Your task to perform on an android device: Show the shopping cart on newegg. Add "lenovo thinkpad" to the cart on newegg Image 0: 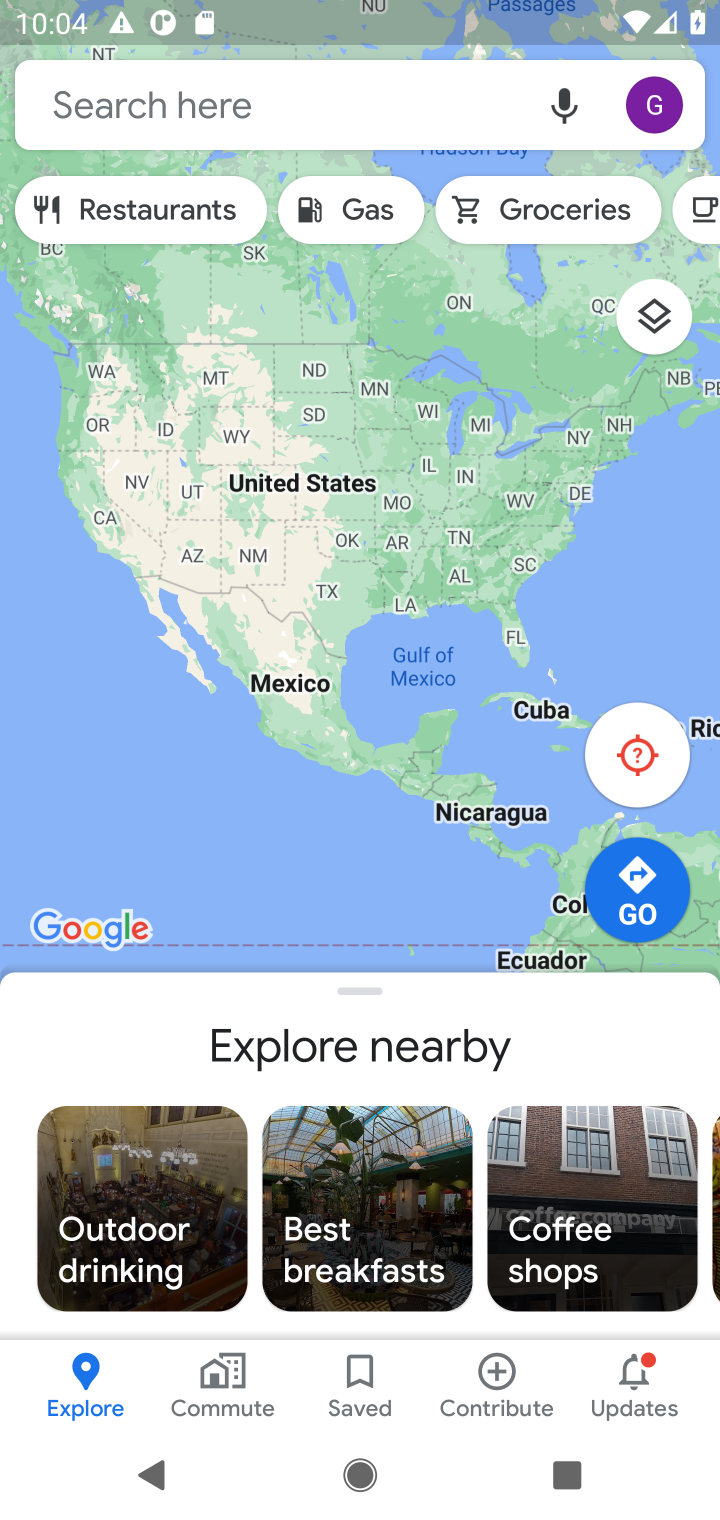
Step 0: press home button
Your task to perform on an android device: Show the shopping cart on newegg. Add "lenovo thinkpad" to the cart on newegg Image 1: 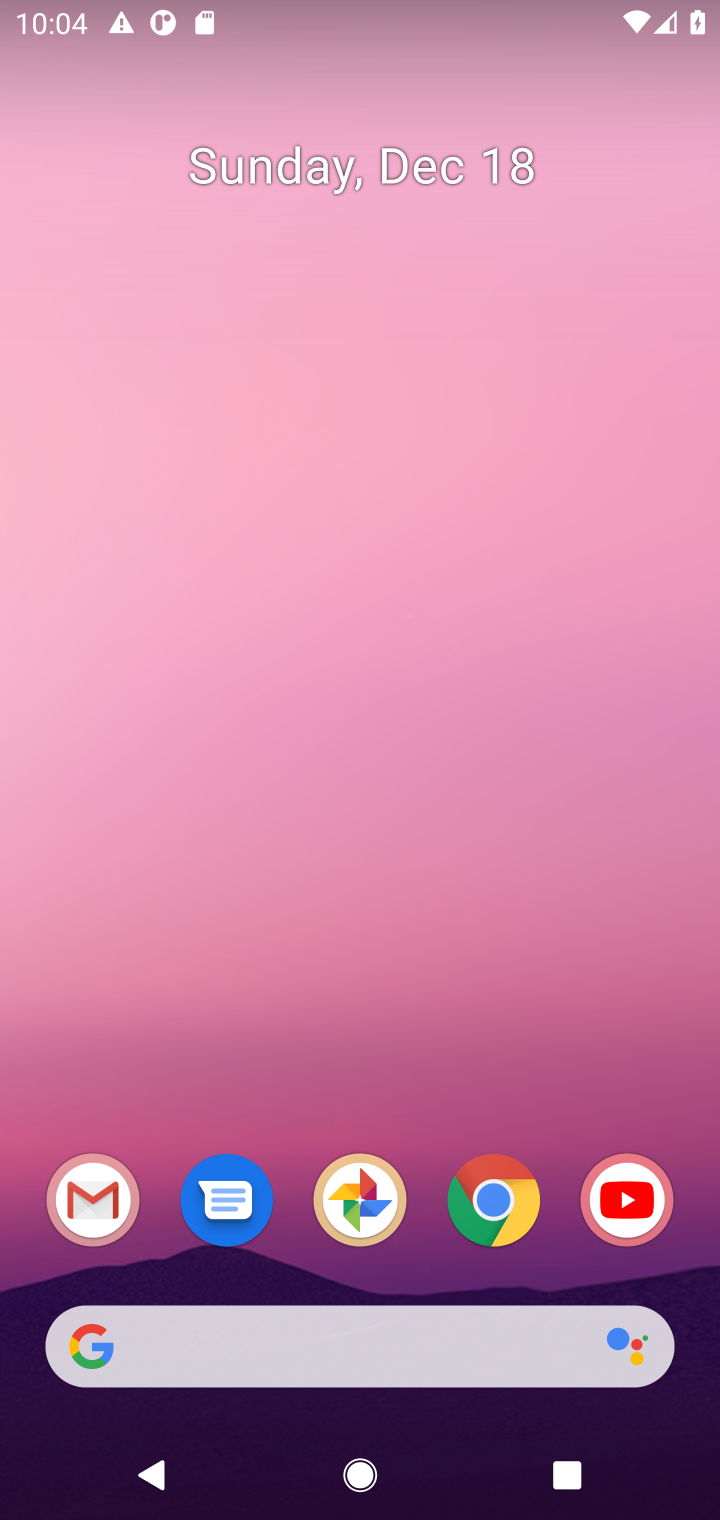
Step 1: click (490, 1204)
Your task to perform on an android device: Show the shopping cart on newegg. Add "lenovo thinkpad" to the cart on newegg Image 2: 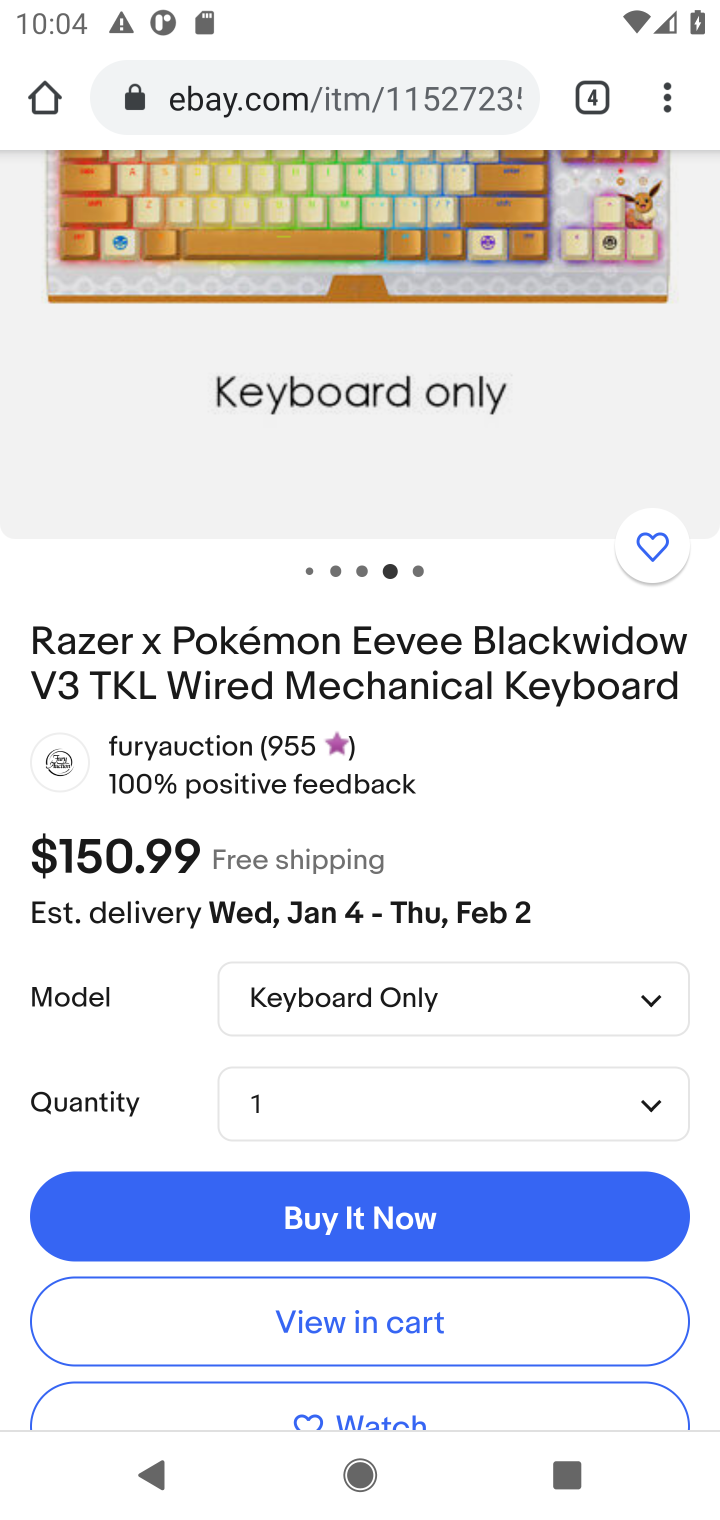
Step 2: click (261, 114)
Your task to perform on an android device: Show the shopping cart on newegg. Add "lenovo thinkpad" to the cart on newegg Image 3: 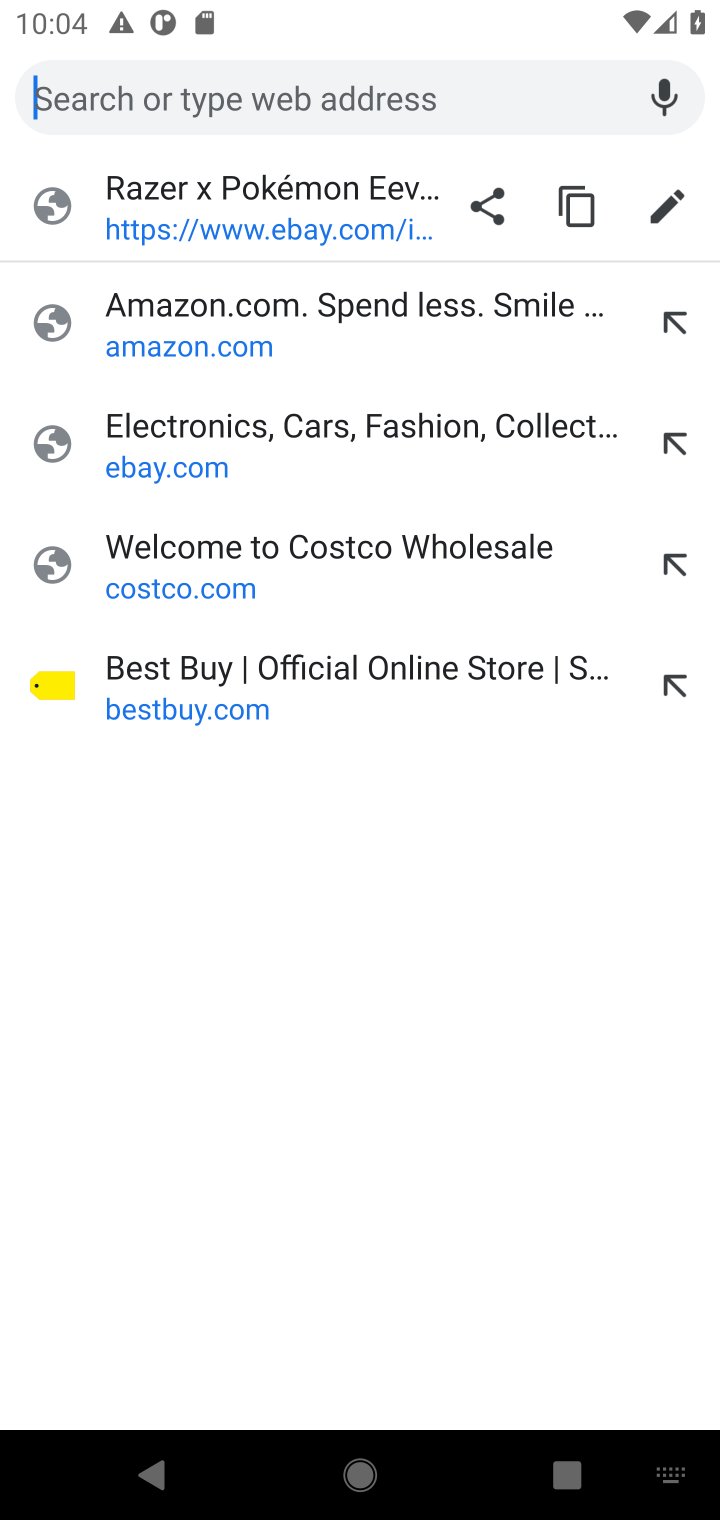
Step 3: type "newegg.com"
Your task to perform on an android device: Show the shopping cart on newegg. Add "lenovo thinkpad" to the cart on newegg Image 4: 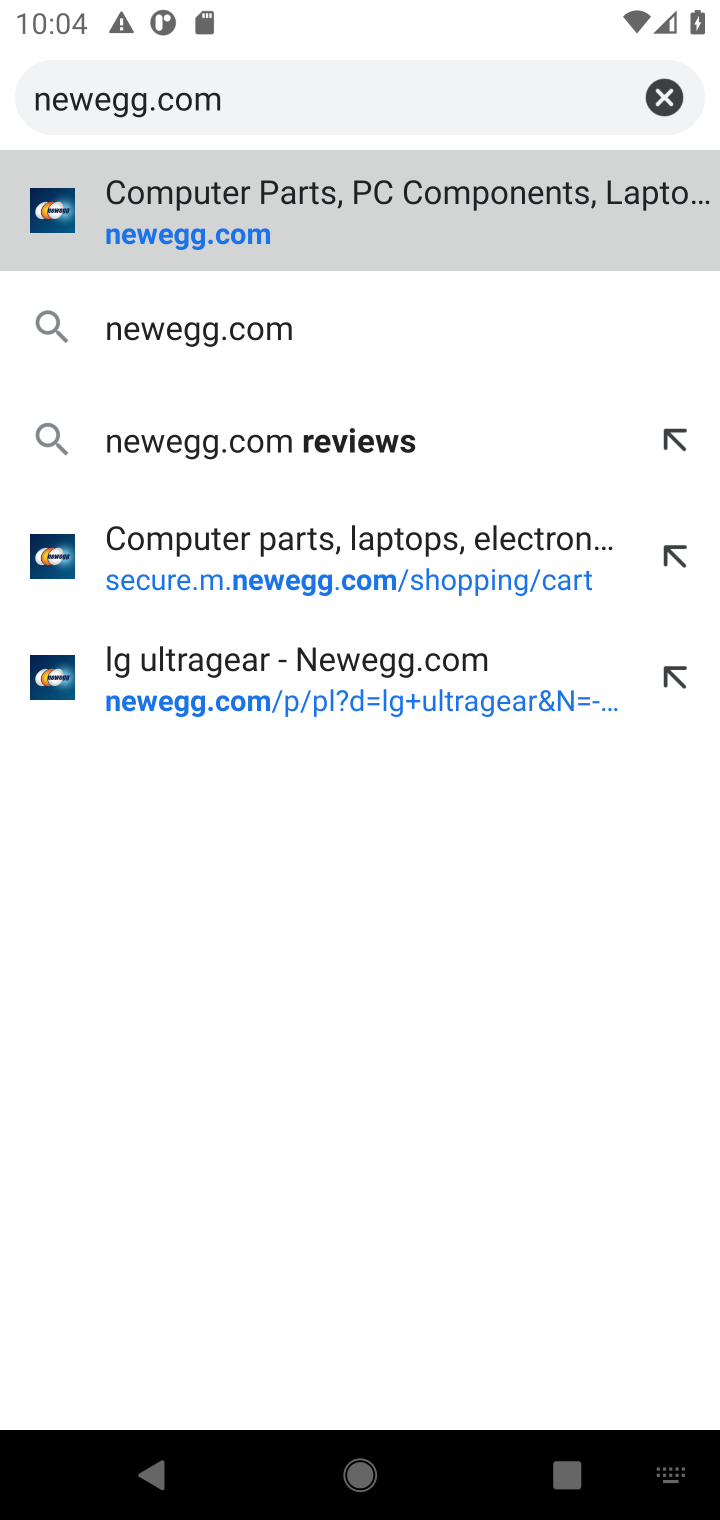
Step 4: click (168, 251)
Your task to perform on an android device: Show the shopping cart on newegg. Add "lenovo thinkpad" to the cart on newegg Image 5: 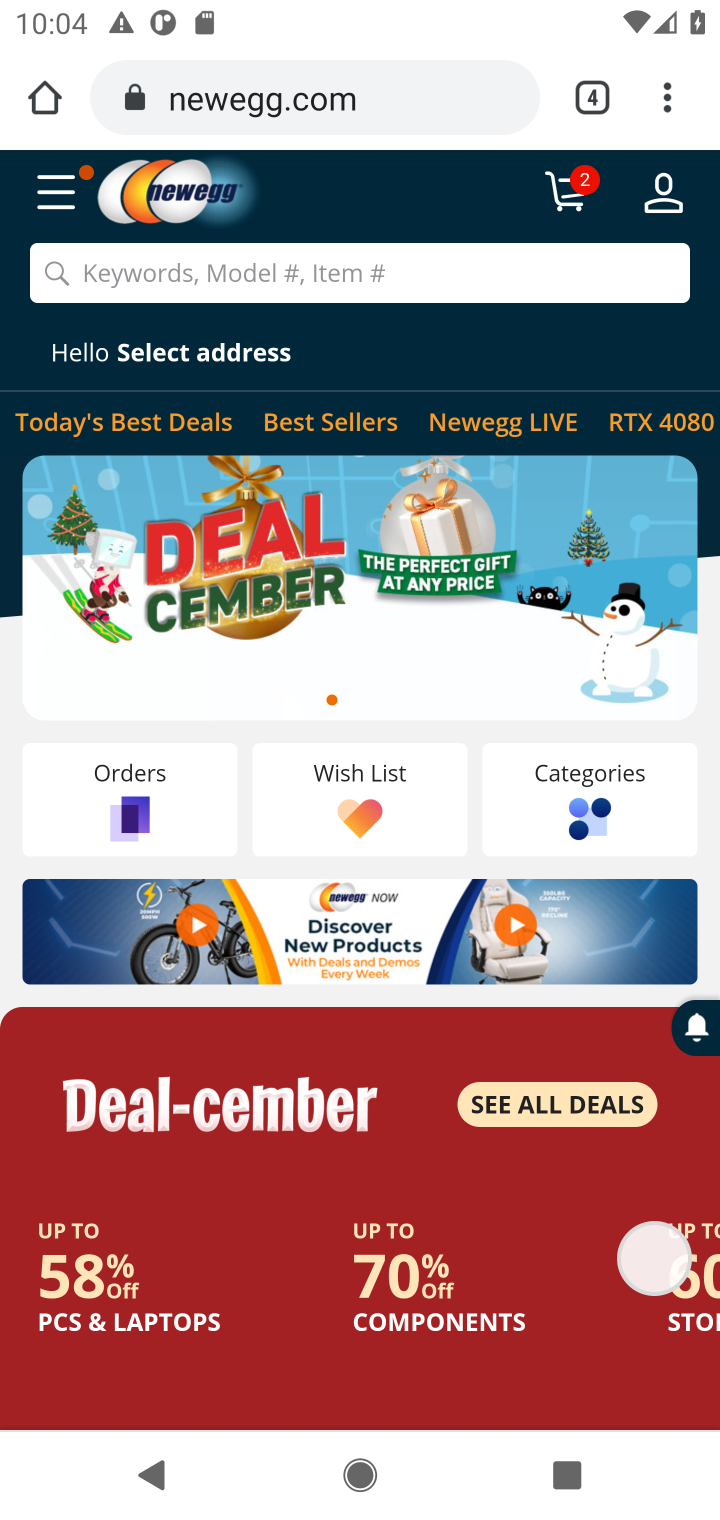
Step 5: click (567, 200)
Your task to perform on an android device: Show the shopping cart on newegg. Add "lenovo thinkpad" to the cart on newegg Image 6: 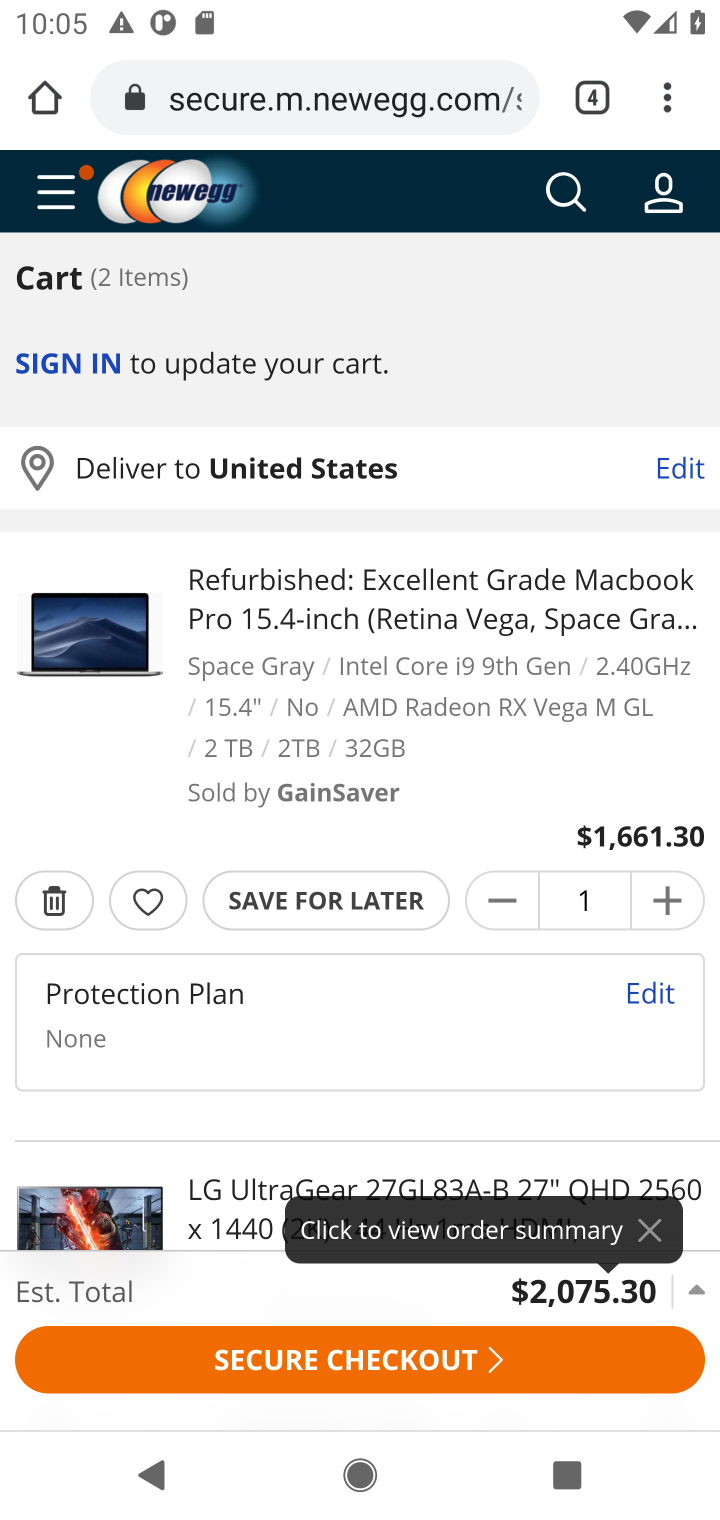
Step 6: click (563, 193)
Your task to perform on an android device: Show the shopping cart on newegg. Add "lenovo thinkpad" to the cart on newegg Image 7: 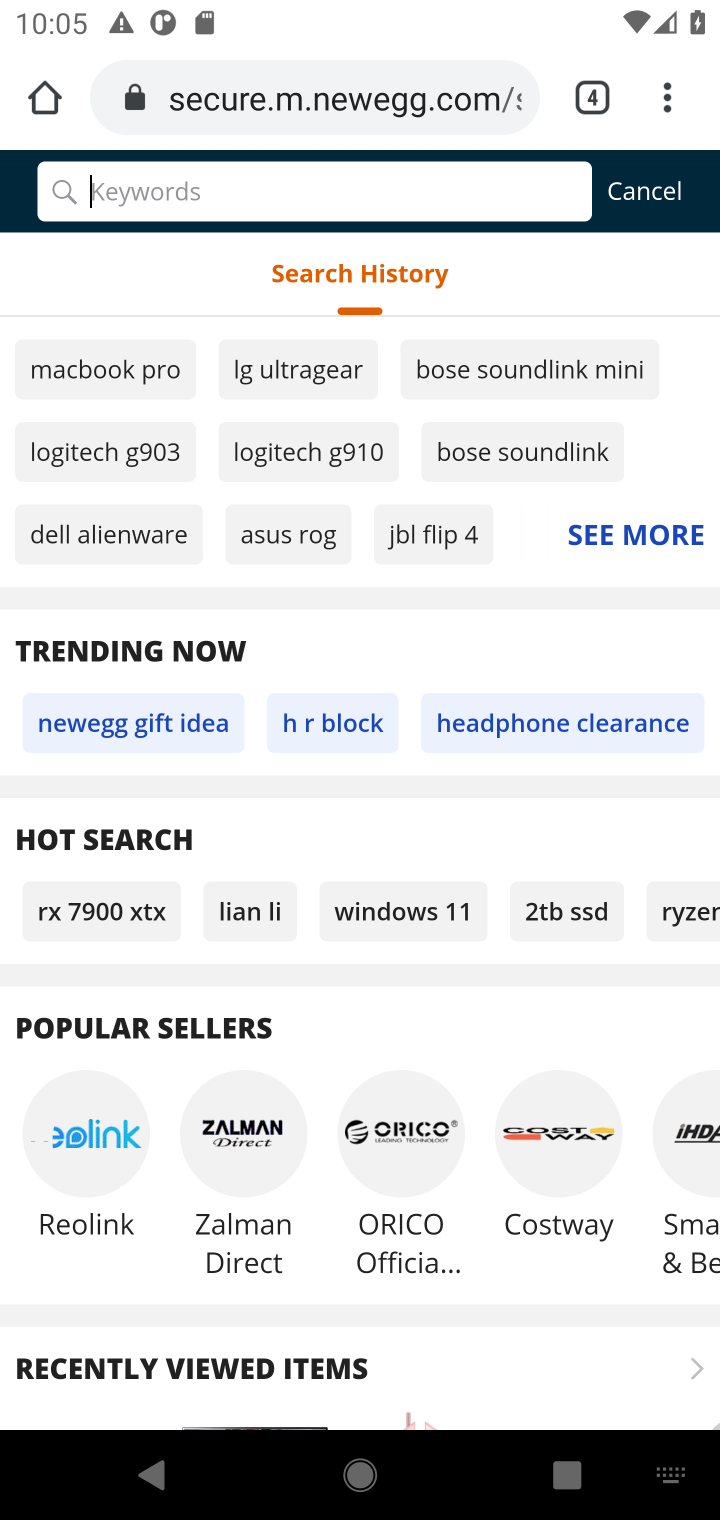
Step 7: type "lenovo thinkpad"
Your task to perform on an android device: Show the shopping cart on newegg. Add "lenovo thinkpad" to the cart on newegg Image 8: 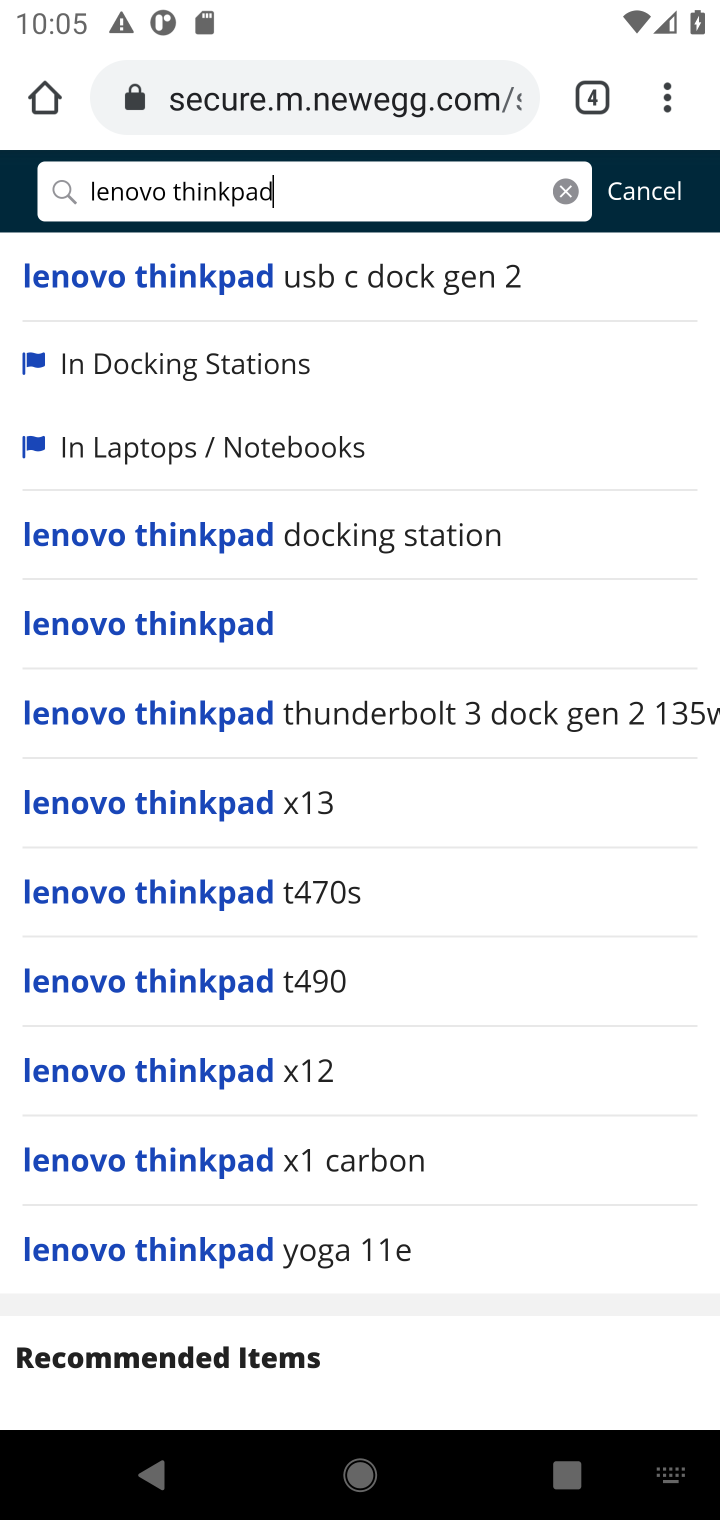
Step 8: click (183, 630)
Your task to perform on an android device: Show the shopping cart on newegg. Add "lenovo thinkpad" to the cart on newegg Image 9: 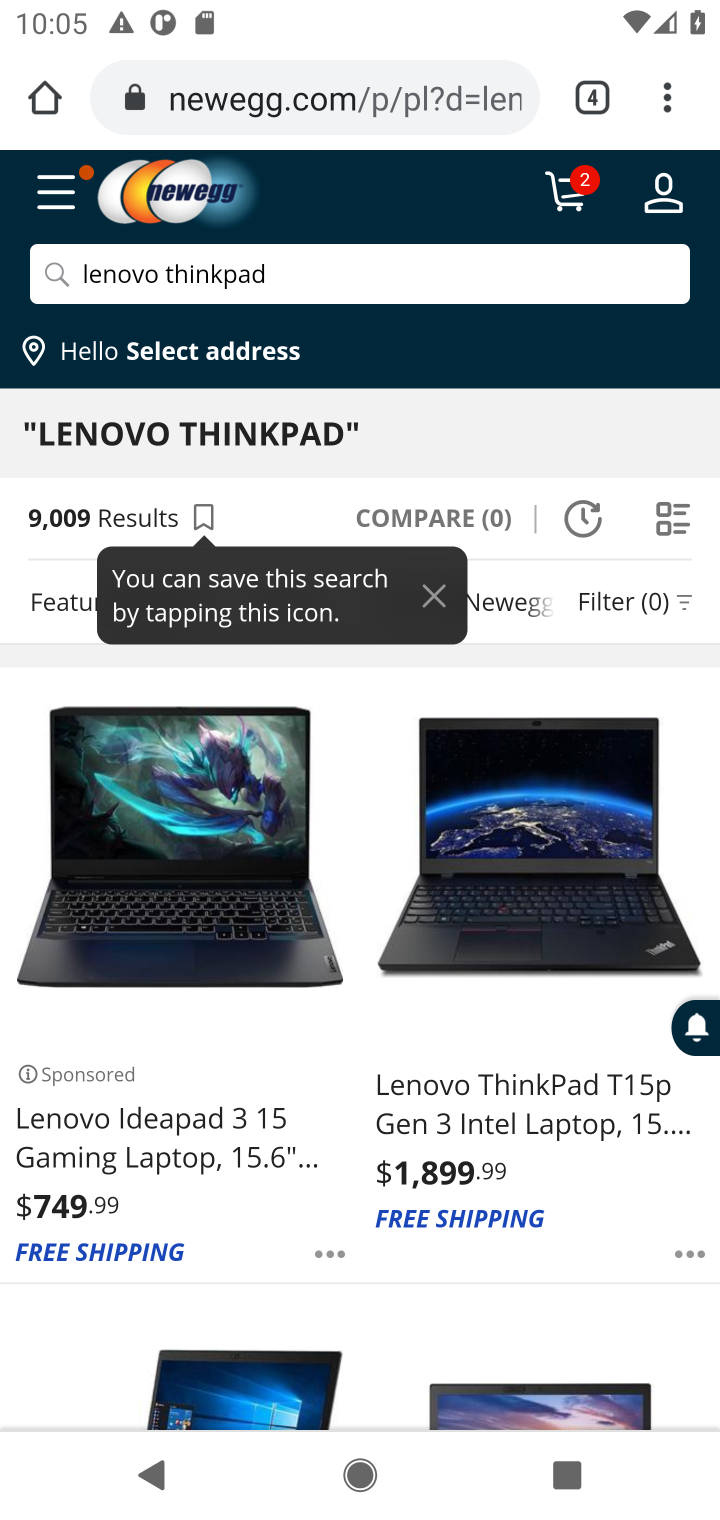
Step 9: drag from (267, 1000) to (234, 727)
Your task to perform on an android device: Show the shopping cart on newegg. Add "lenovo thinkpad" to the cart on newegg Image 10: 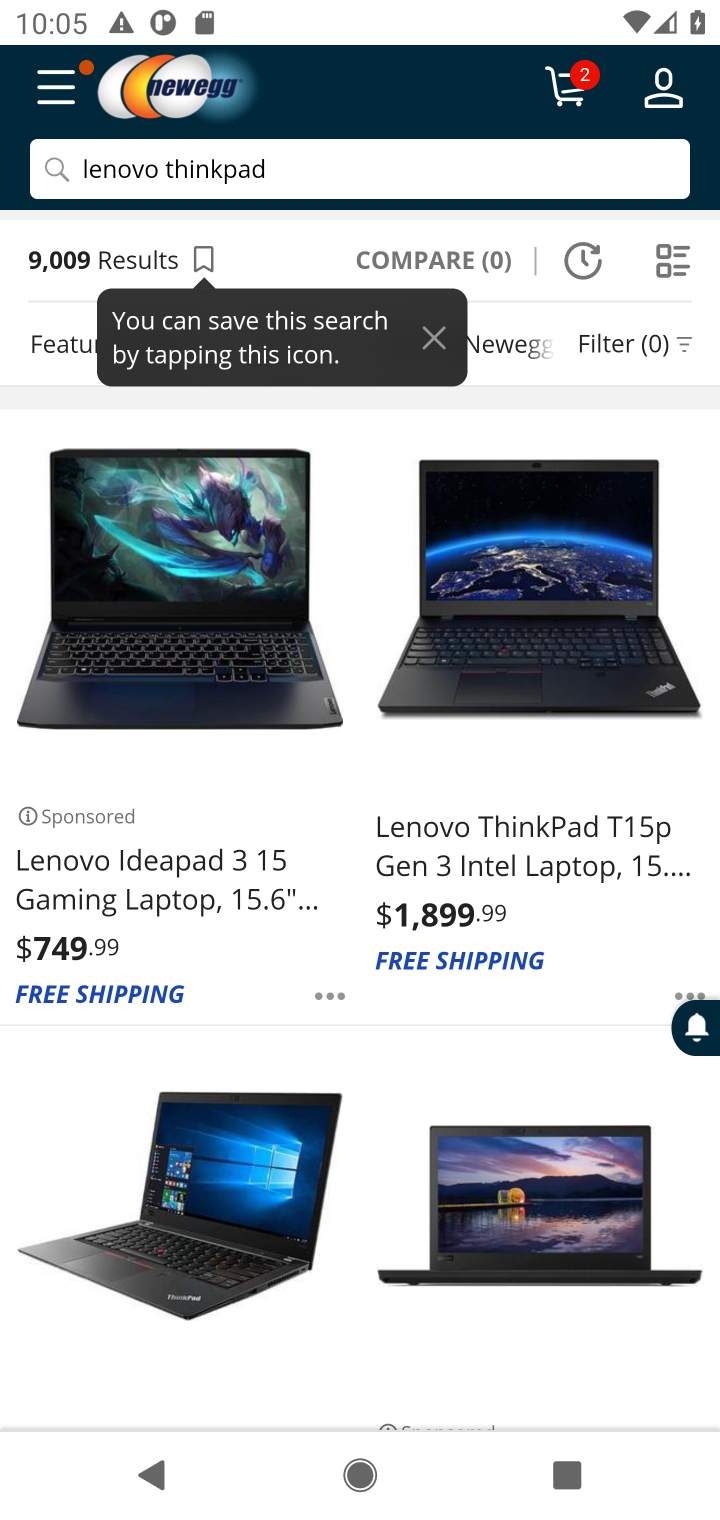
Step 10: click (502, 880)
Your task to perform on an android device: Show the shopping cart on newegg. Add "lenovo thinkpad" to the cart on newegg Image 11: 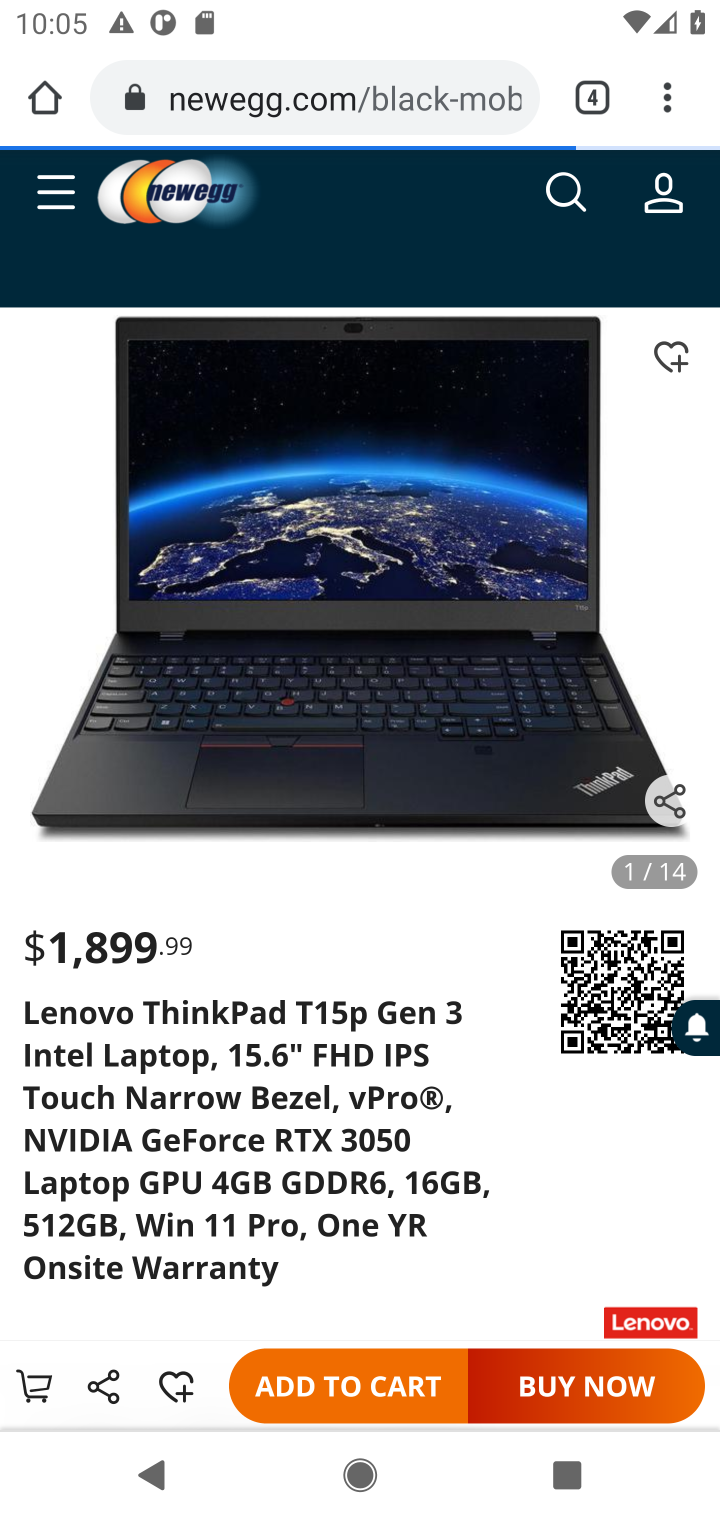
Step 11: click (361, 1378)
Your task to perform on an android device: Show the shopping cart on newegg. Add "lenovo thinkpad" to the cart on newegg Image 12: 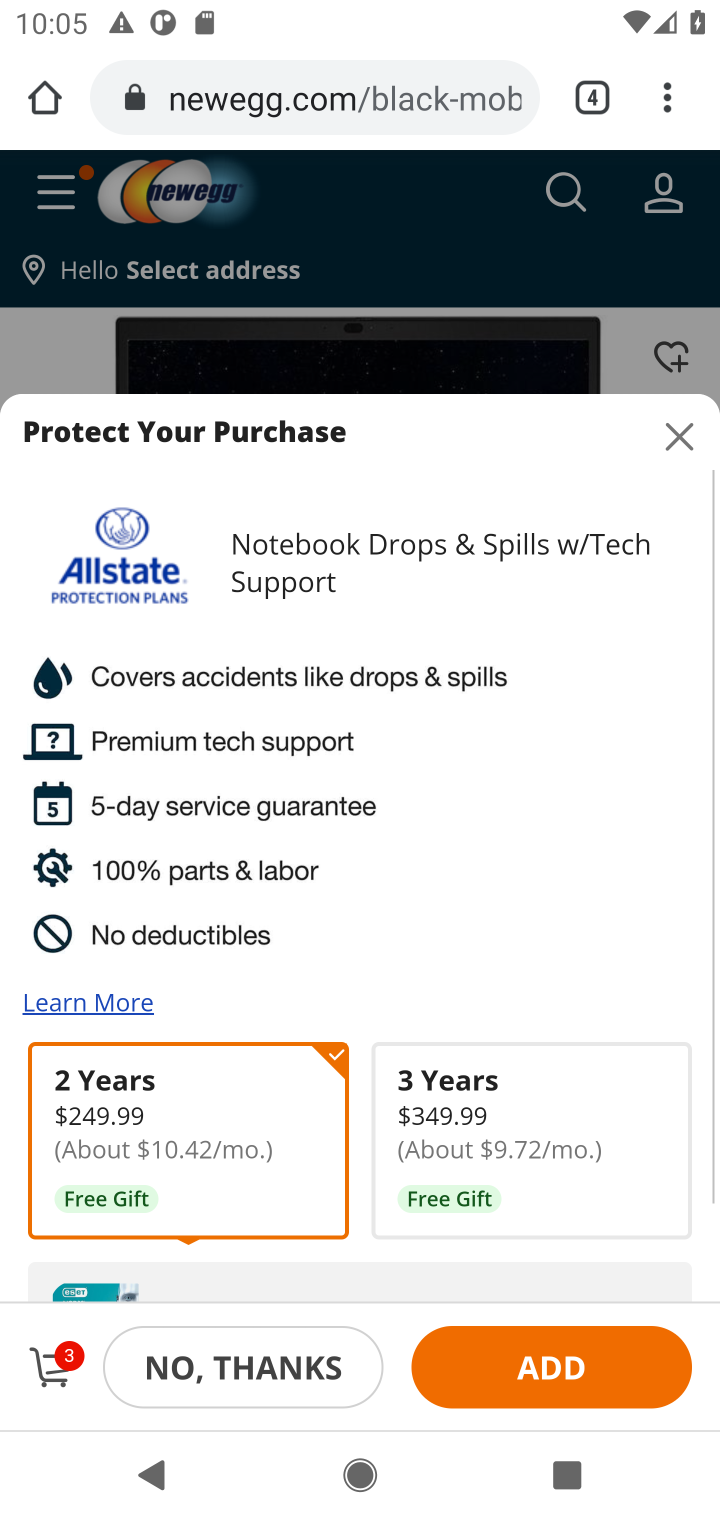
Step 12: task complete